Your task to perform on an android device: Open Google Chrome Image 0: 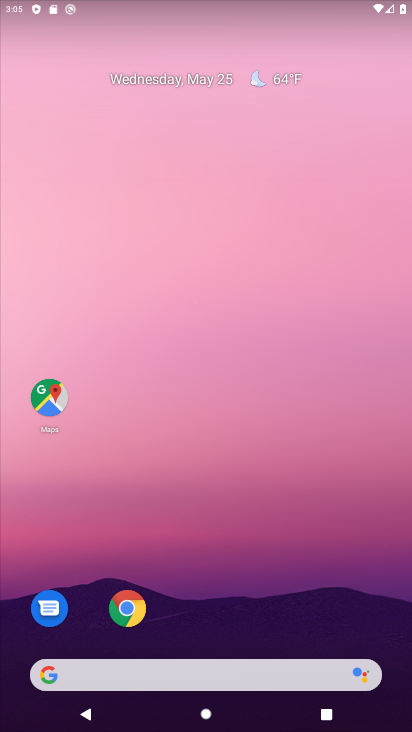
Step 0: click (125, 603)
Your task to perform on an android device: Open Google Chrome Image 1: 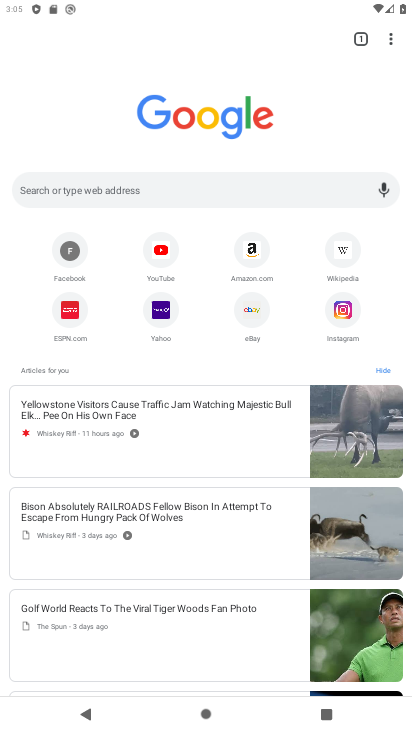
Step 1: press home button
Your task to perform on an android device: Open Google Chrome Image 2: 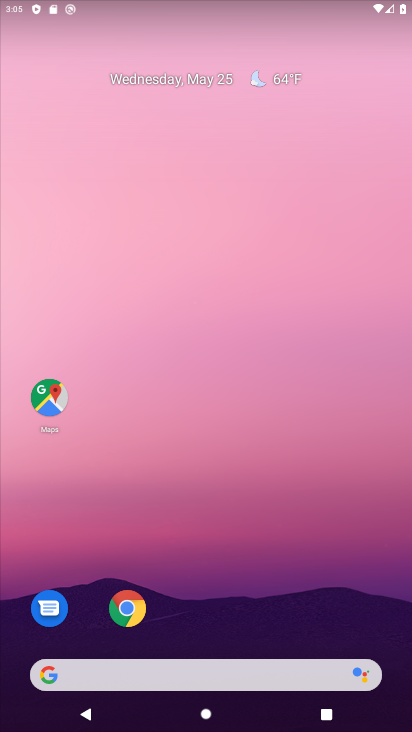
Step 2: click (135, 607)
Your task to perform on an android device: Open Google Chrome Image 3: 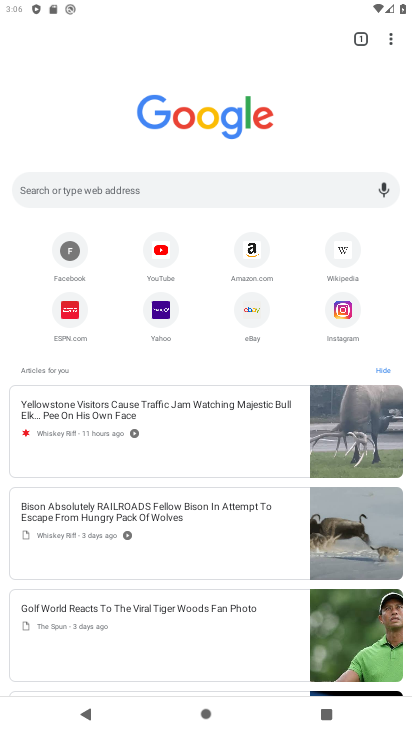
Step 3: task complete